Your task to perform on an android device: Go to Google maps Image 0: 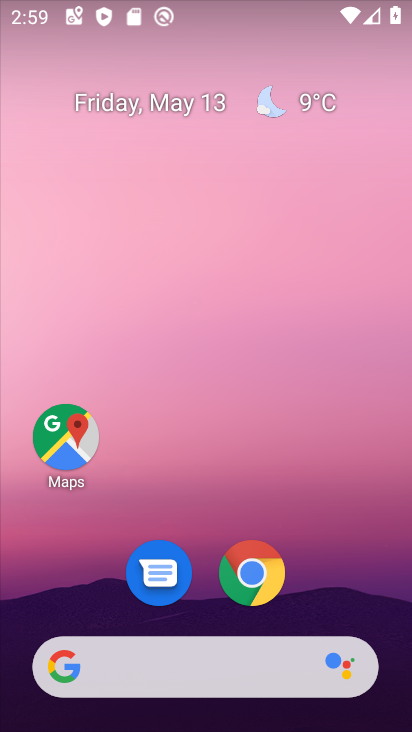
Step 0: click (79, 433)
Your task to perform on an android device: Go to Google maps Image 1: 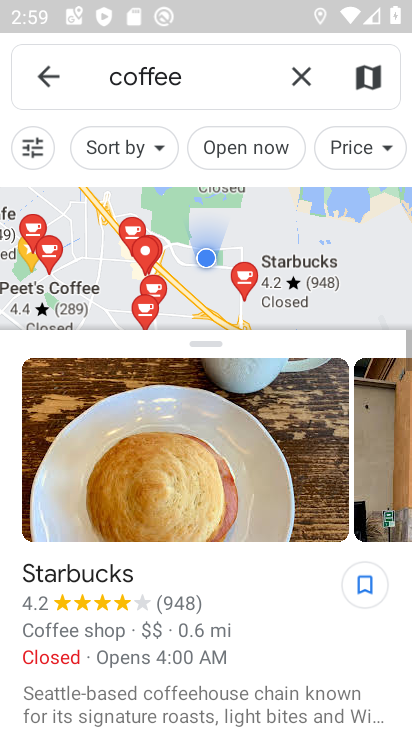
Step 1: task complete